Your task to perform on an android device: find snoozed emails in the gmail app Image 0: 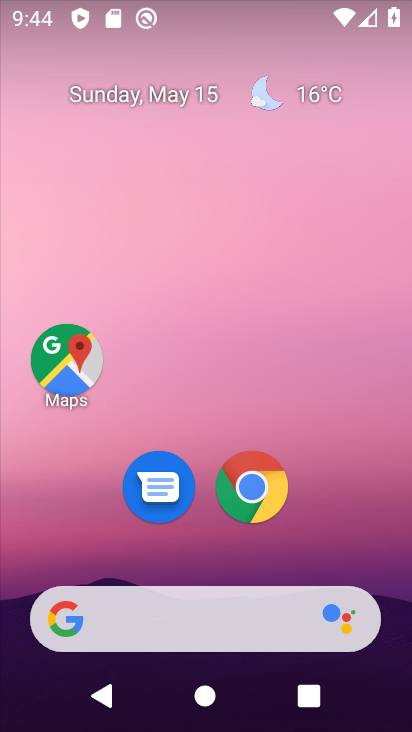
Step 0: drag from (397, 623) to (345, 283)
Your task to perform on an android device: find snoozed emails in the gmail app Image 1: 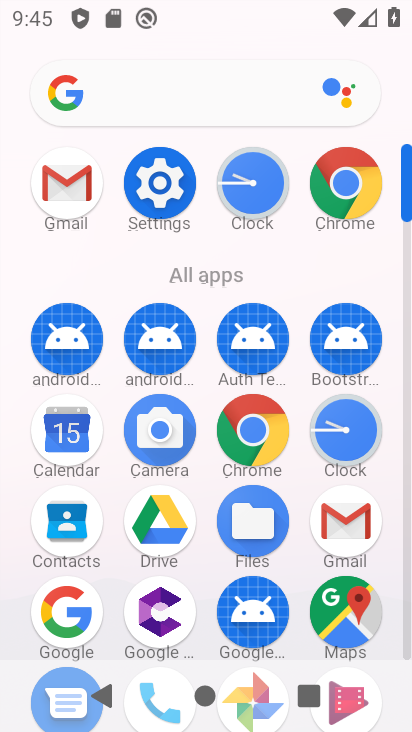
Step 1: click (345, 517)
Your task to perform on an android device: find snoozed emails in the gmail app Image 2: 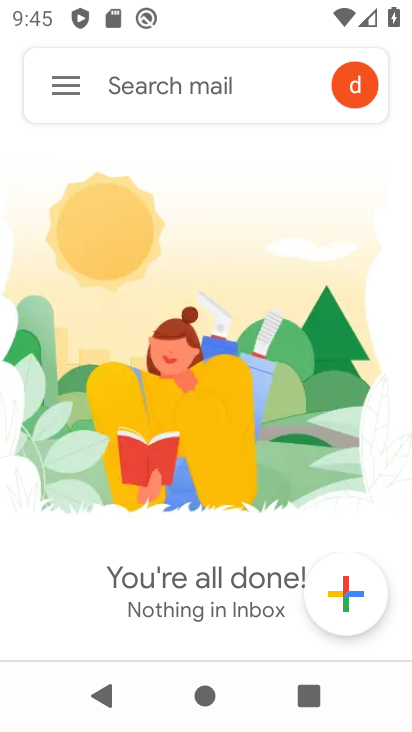
Step 2: click (66, 95)
Your task to perform on an android device: find snoozed emails in the gmail app Image 3: 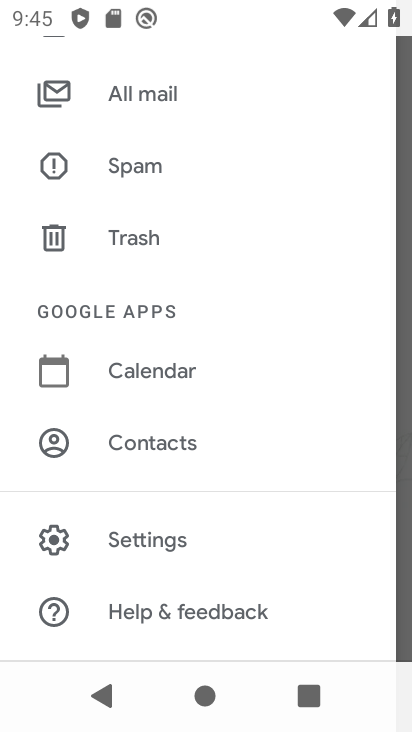
Step 3: click (149, 544)
Your task to perform on an android device: find snoozed emails in the gmail app Image 4: 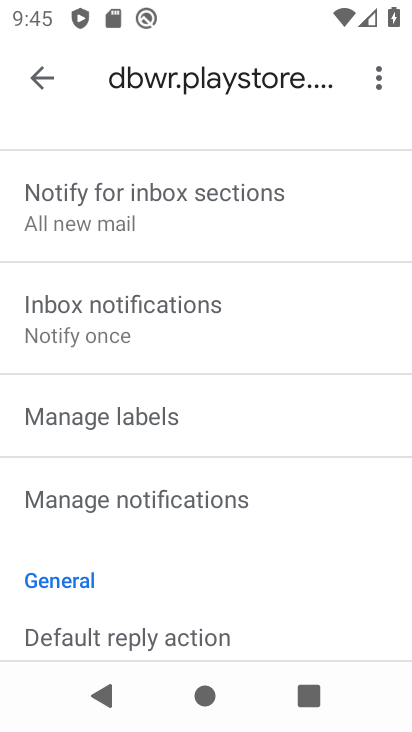
Step 4: drag from (245, 589) to (252, 515)
Your task to perform on an android device: find snoozed emails in the gmail app Image 5: 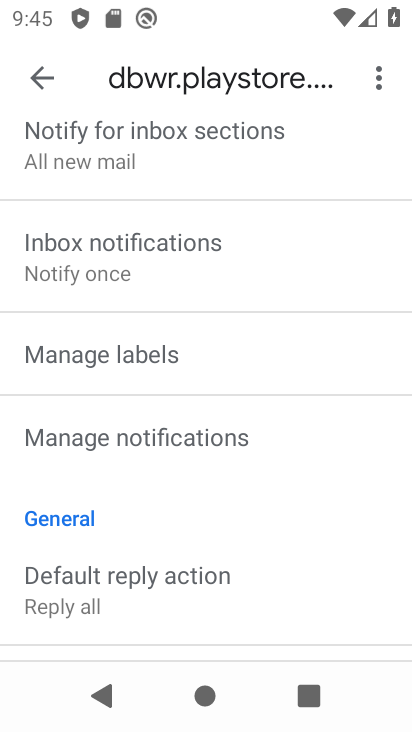
Step 5: press back button
Your task to perform on an android device: find snoozed emails in the gmail app Image 6: 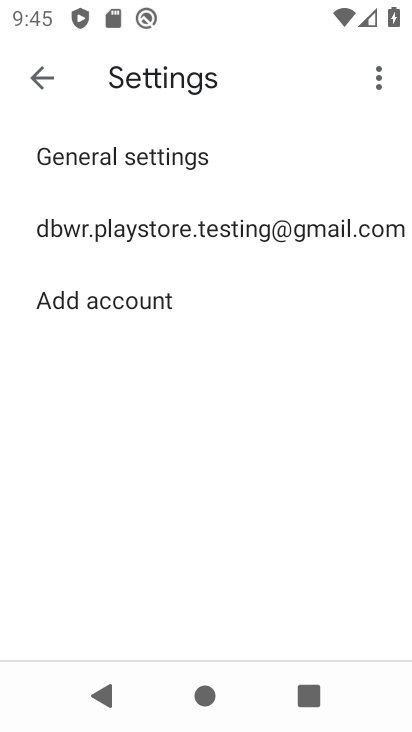
Step 6: press back button
Your task to perform on an android device: find snoozed emails in the gmail app Image 7: 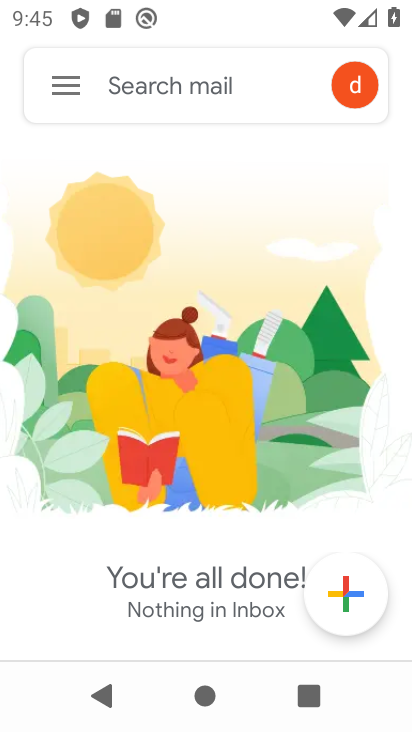
Step 7: click (58, 86)
Your task to perform on an android device: find snoozed emails in the gmail app Image 8: 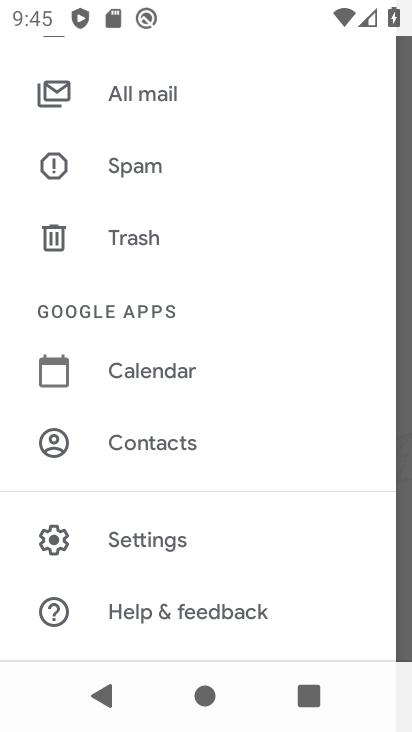
Step 8: drag from (228, 189) to (247, 506)
Your task to perform on an android device: find snoozed emails in the gmail app Image 9: 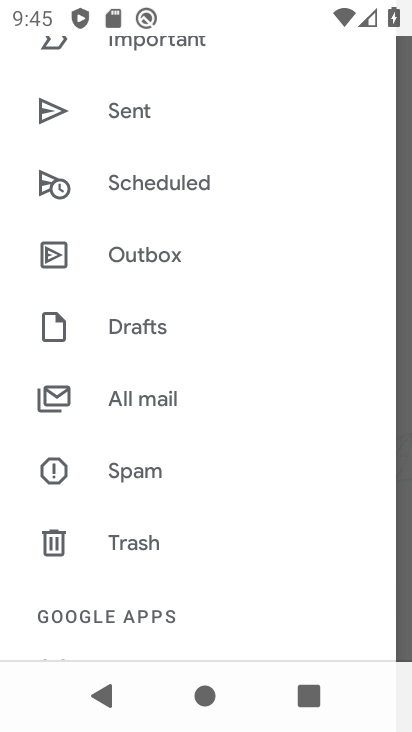
Step 9: drag from (247, 262) to (228, 470)
Your task to perform on an android device: find snoozed emails in the gmail app Image 10: 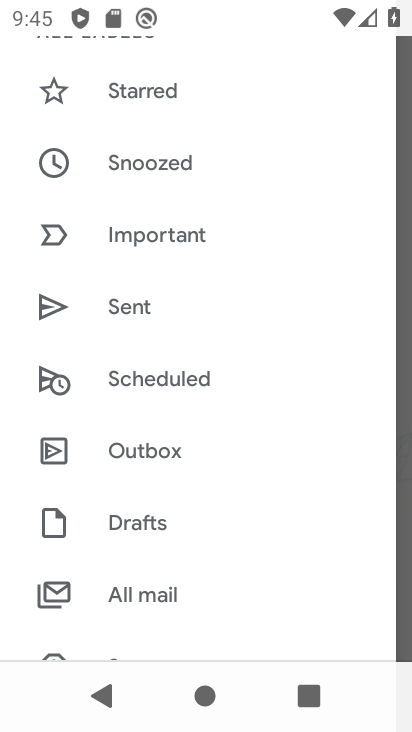
Step 10: click (145, 161)
Your task to perform on an android device: find snoozed emails in the gmail app Image 11: 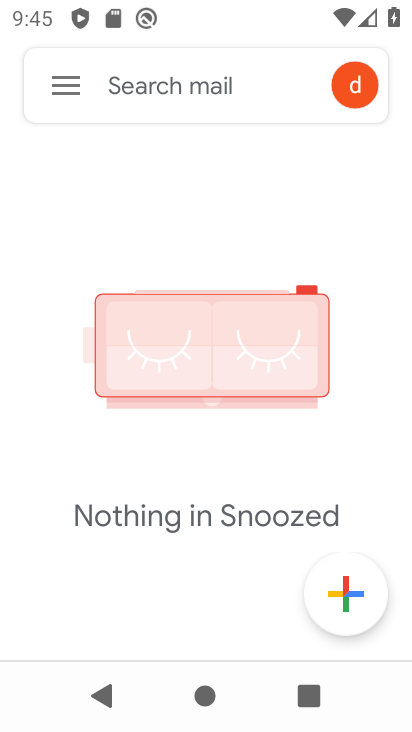
Step 11: task complete